Your task to perform on an android device: Open network settings Image 0: 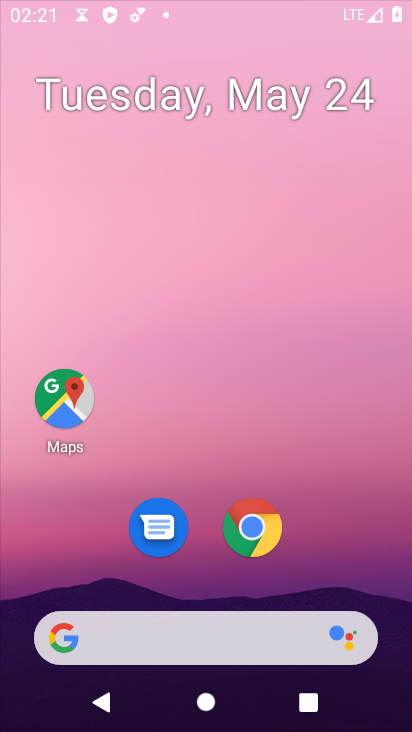
Step 0: press home button
Your task to perform on an android device: Open network settings Image 1: 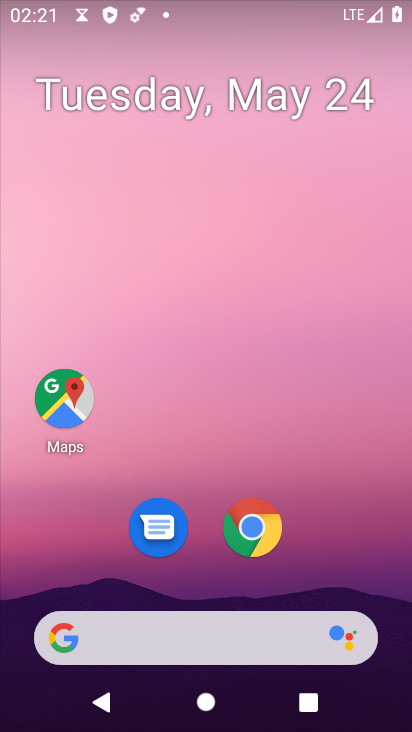
Step 1: drag from (175, 638) to (339, 64)
Your task to perform on an android device: Open network settings Image 2: 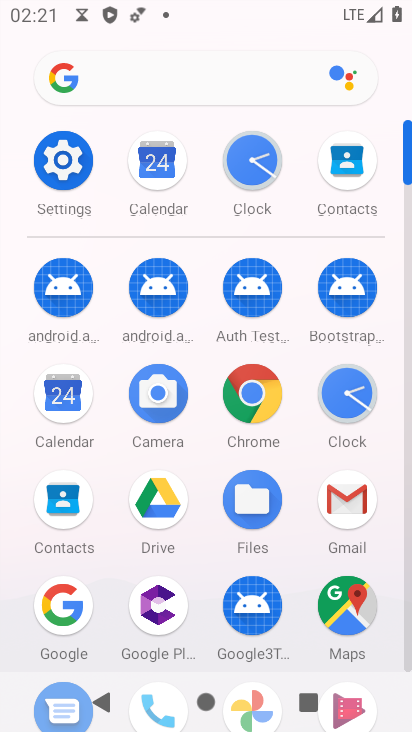
Step 2: click (72, 174)
Your task to perform on an android device: Open network settings Image 3: 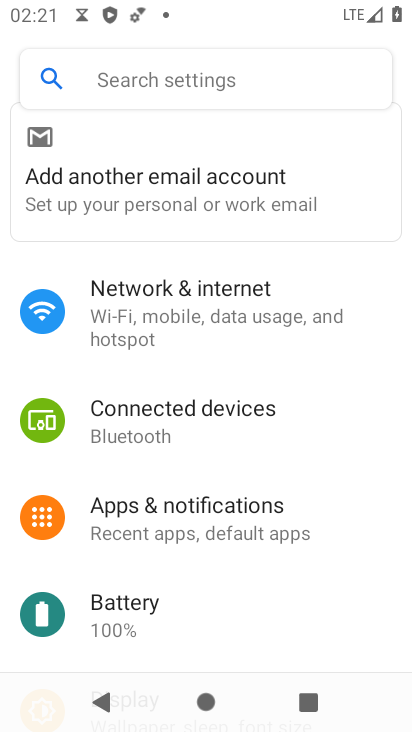
Step 3: click (190, 294)
Your task to perform on an android device: Open network settings Image 4: 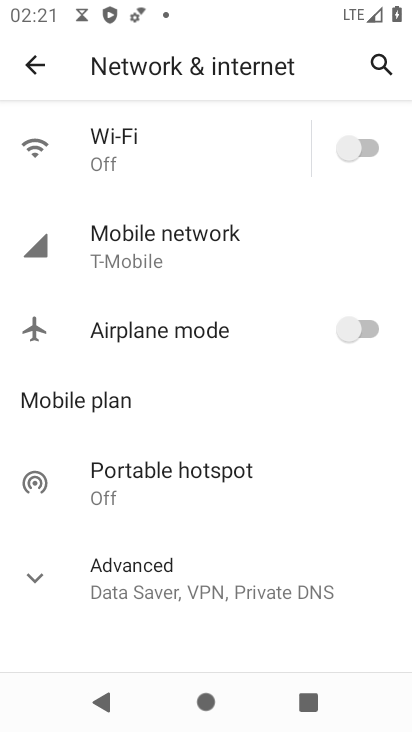
Step 4: task complete